Your task to perform on an android device: turn on showing notifications on the lock screen Image 0: 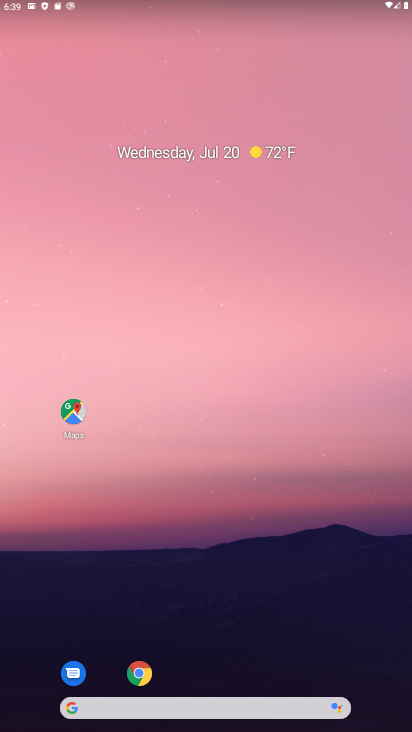
Step 0: drag from (334, 656) to (210, 21)
Your task to perform on an android device: turn on showing notifications on the lock screen Image 1: 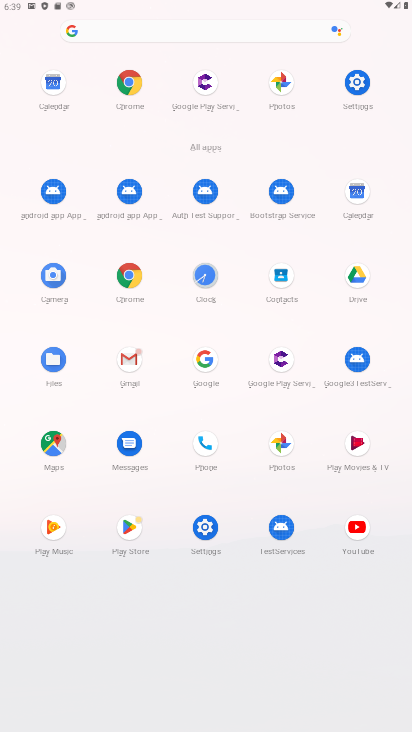
Step 1: click (369, 84)
Your task to perform on an android device: turn on showing notifications on the lock screen Image 2: 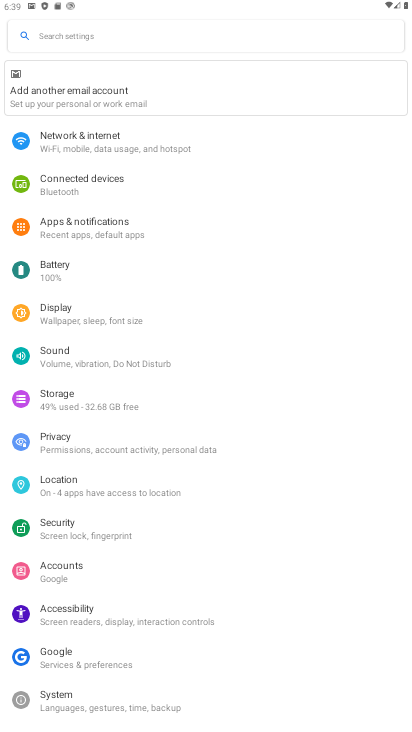
Step 2: click (105, 228)
Your task to perform on an android device: turn on showing notifications on the lock screen Image 3: 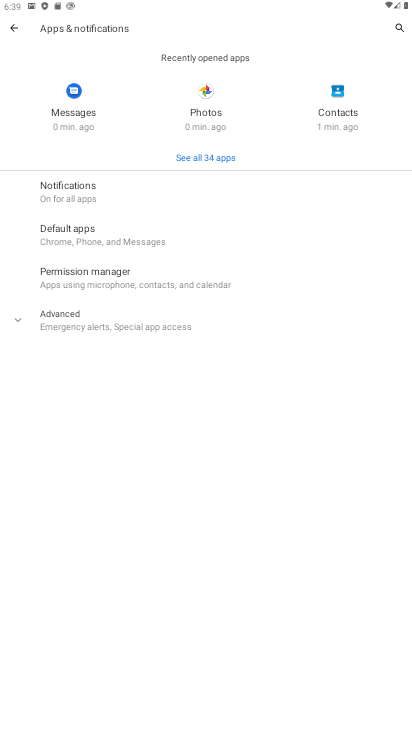
Step 3: click (103, 322)
Your task to perform on an android device: turn on showing notifications on the lock screen Image 4: 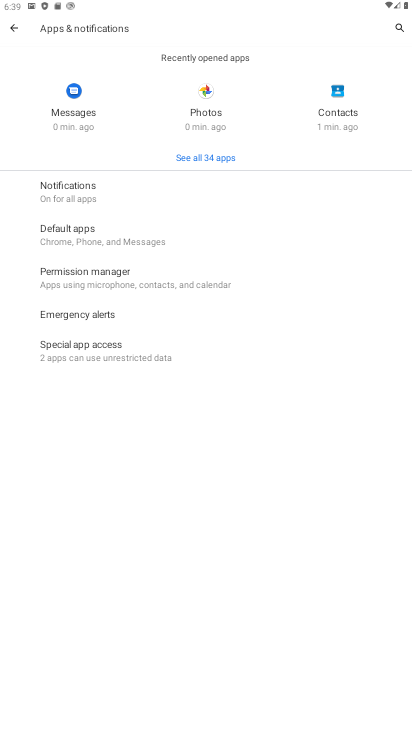
Step 4: click (105, 196)
Your task to perform on an android device: turn on showing notifications on the lock screen Image 5: 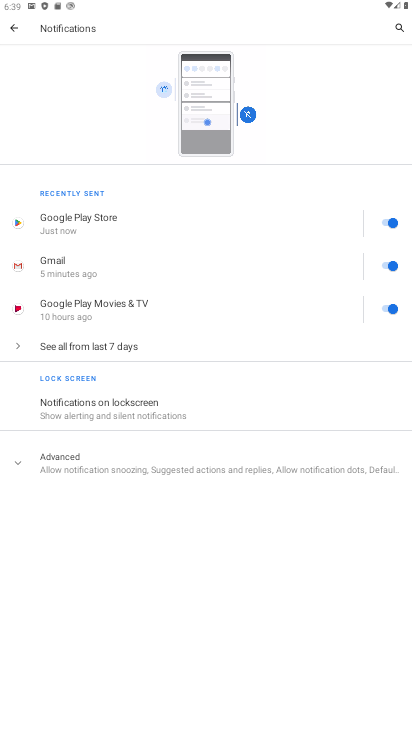
Step 5: click (155, 412)
Your task to perform on an android device: turn on showing notifications on the lock screen Image 6: 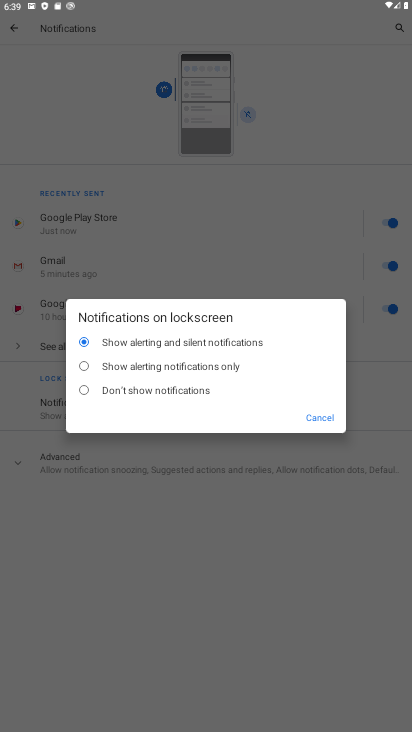
Step 6: click (132, 334)
Your task to perform on an android device: turn on showing notifications on the lock screen Image 7: 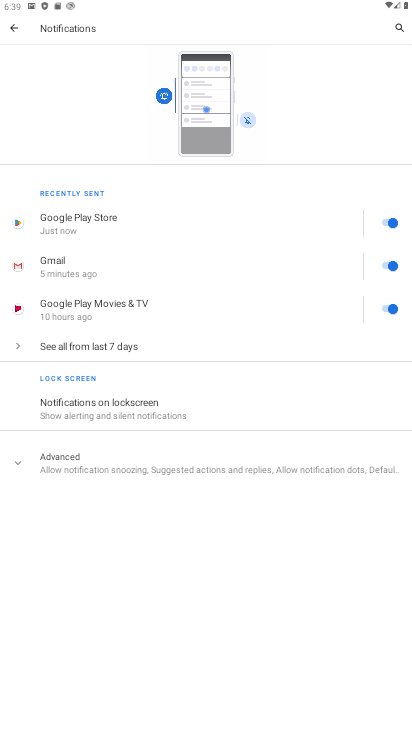
Step 7: task complete